Your task to perform on an android device: toggle show notifications on the lock screen Image 0: 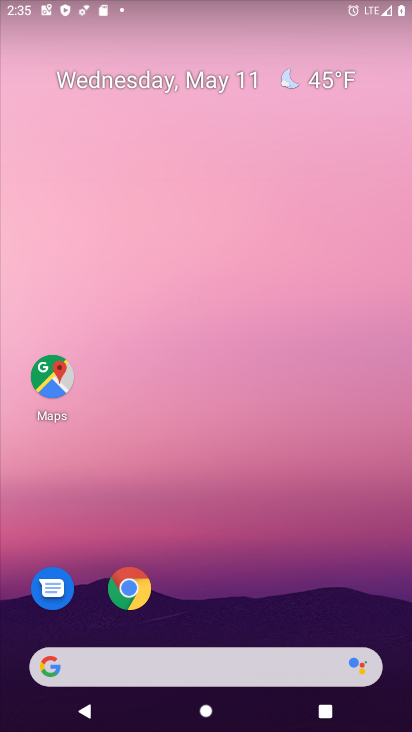
Step 0: drag from (217, 622) to (357, 231)
Your task to perform on an android device: toggle show notifications on the lock screen Image 1: 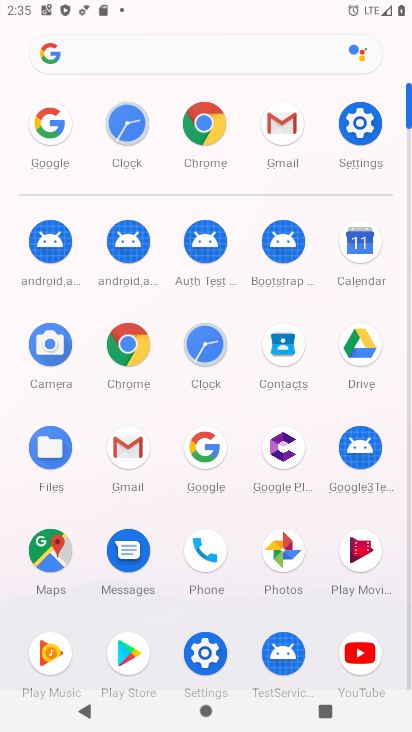
Step 1: click (367, 115)
Your task to perform on an android device: toggle show notifications on the lock screen Image 2: 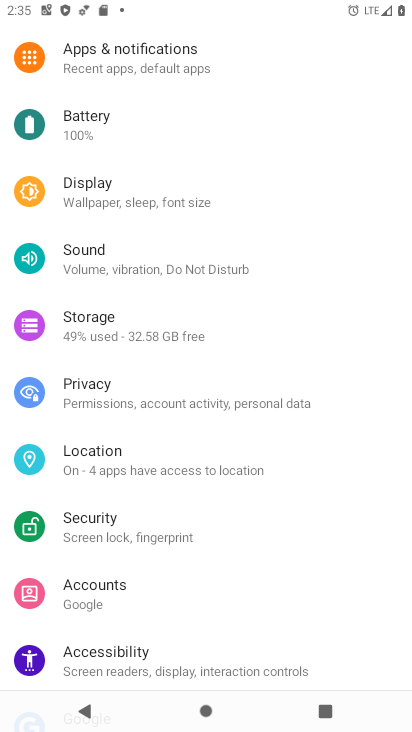
Step 2: click (191, 75)
Your task to perform on an android device: toggle show notifications on the lock screen Image 3: 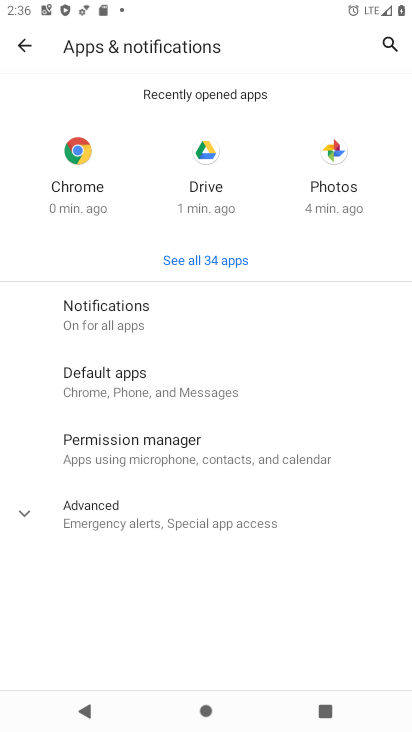
Step 3: click (136, 316)
Your task to perform on an android device: toggle show notifications on the lock screen Image 4: 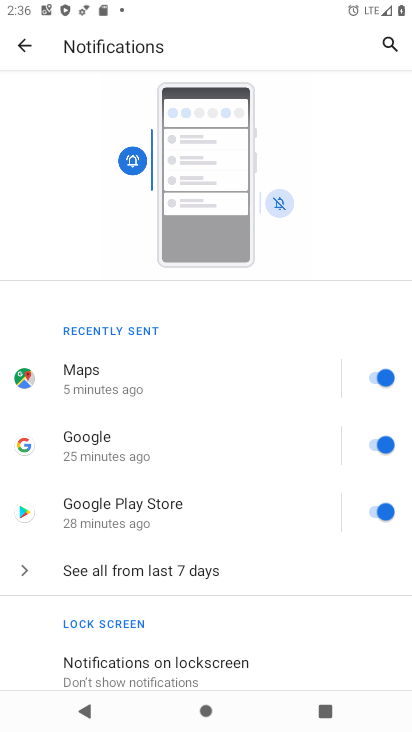
Step 4: click (223, 662)
Your task to perform on an android device: toggle show notifications on the lock screen Image 5: 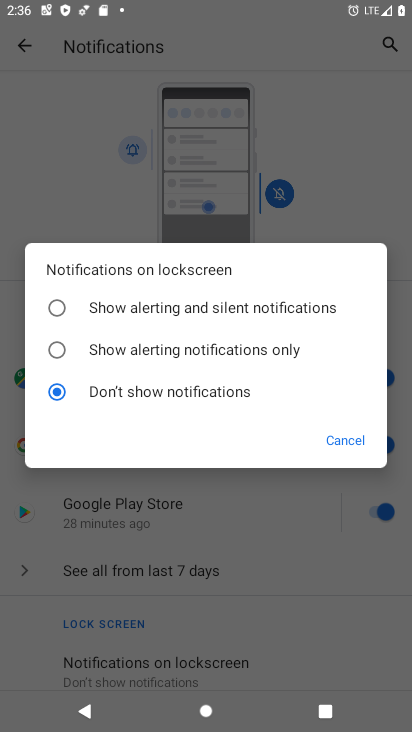
Step 5: click (53, 312)
Your task to perform on an android device: toggle show notifications on the lock screen Image 6: 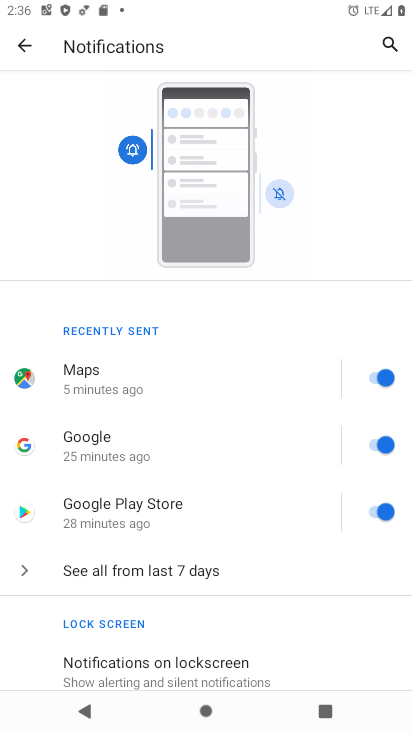
Step 6: task complete